Your task to perform on an android device: turn off data saver in the chrome app Image 0: 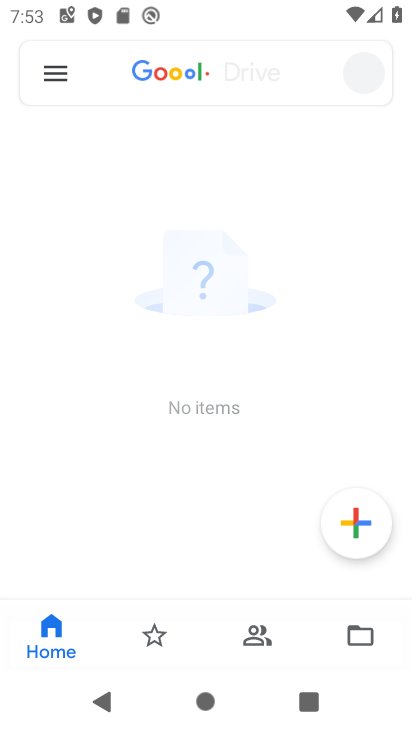
Step 0: click (58, 390)
Your task to perform on an android device: turn off data saver in the chrome app Image 1: 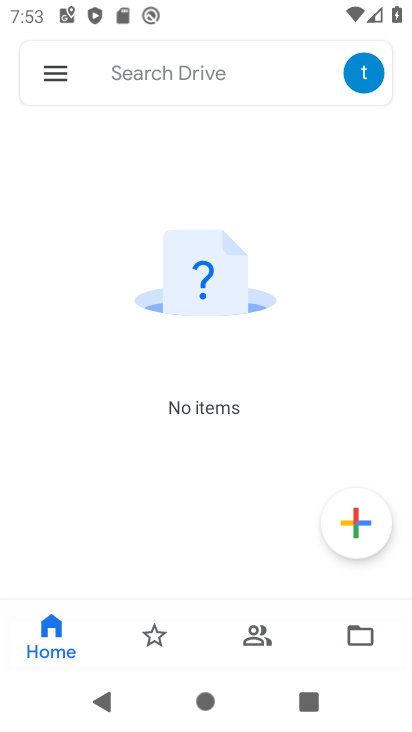
Step 1: press home button
Your task to perform on an android device: turn off data saver in the chrome app Image 2: 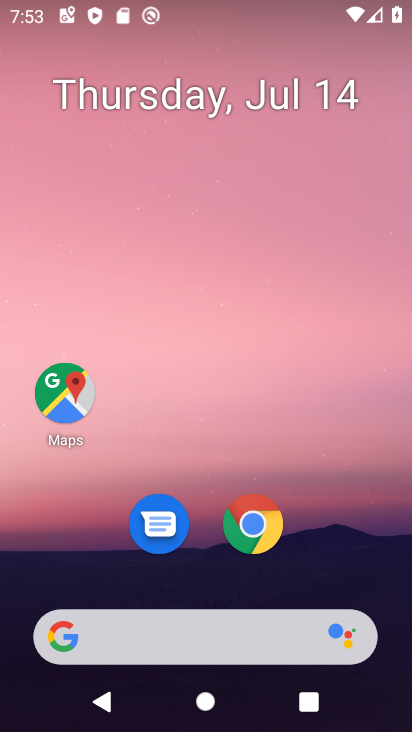
Step 2: click (258, 515)
Your task to perform on an android device: turn off data saver in the chrome app Image 3: 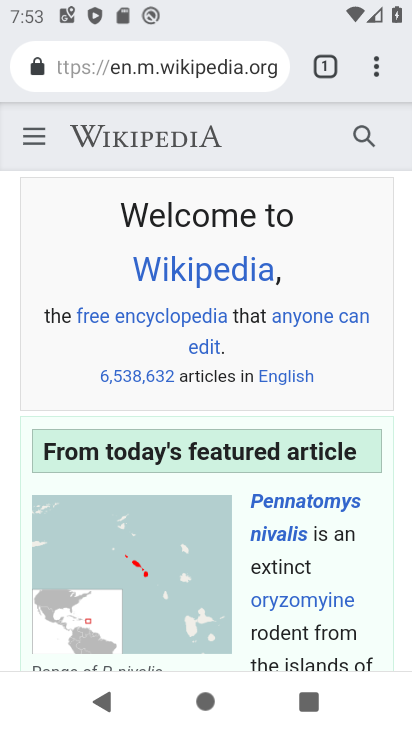
Step 3: click (380, 68)
Your task to perform on an android device: turn off data saver in the chrome app Image 4: 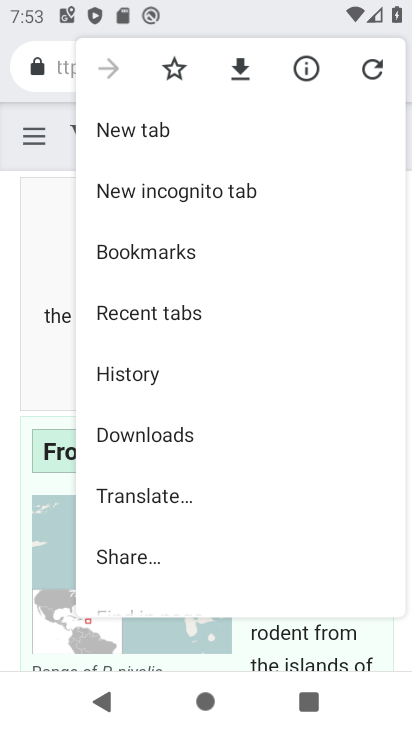
Step 4: drag from (239, 512) to (294, 150)
Your task to perform on an android device: turn off data saver in the chrome app Image 5: 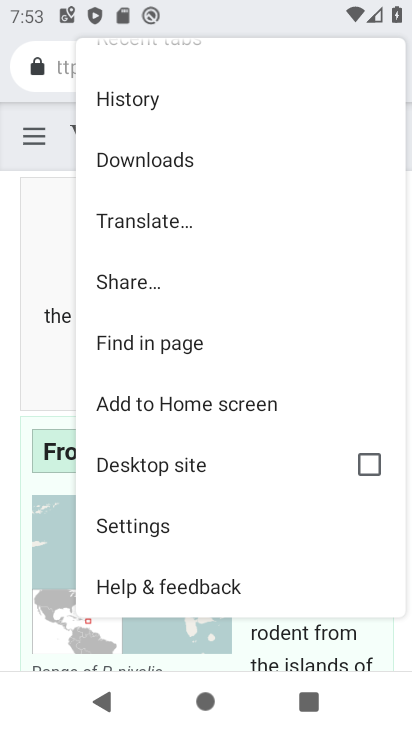
Step 5: click (147, 520)
Your task to perform on an android device: turn off data saver in the chrome app Image 6: 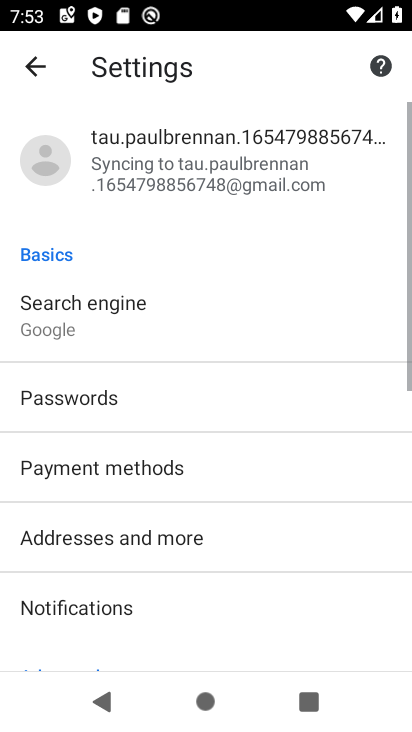
Step 6: drag from (276, 489) to (269, 130)
Your task to perform on an android device: turn off data saver in the chrome app Image 7: 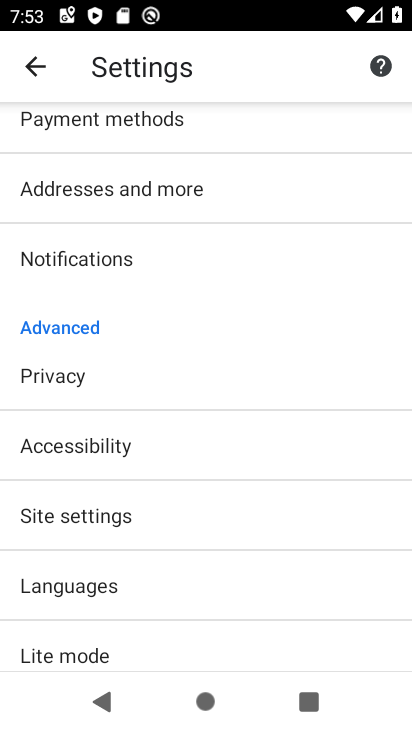
Step 7: drag from (141, 537) to (162, 288)
Your task to perform on an android device: turn off data saver in the chrome app Image 8: 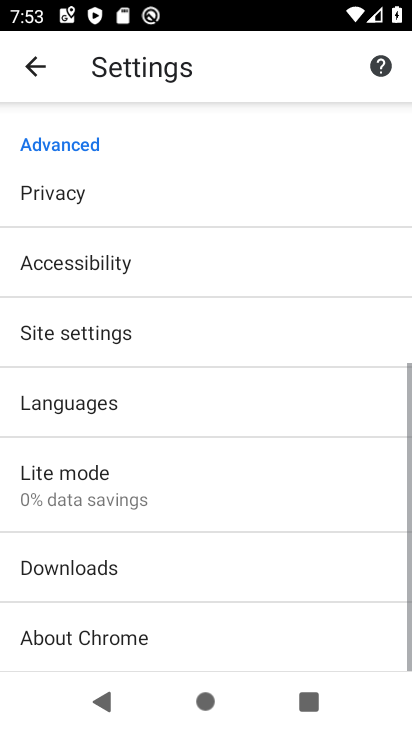
Step 8: click (152, 494)
Your task to perform on an android device: turn off data saver in the chrome app Image 9: 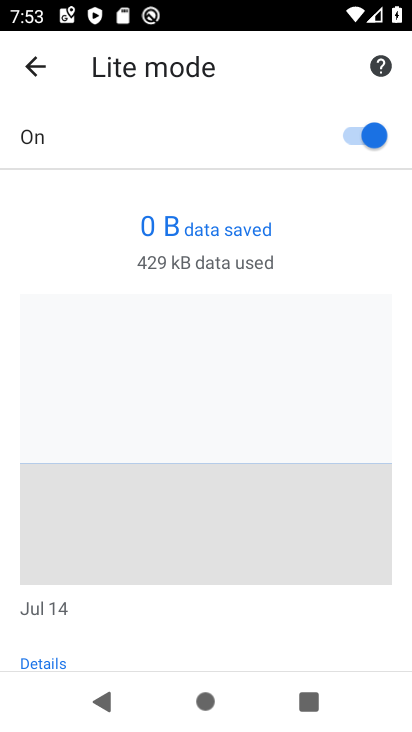
Step 9: click (358, 125)
Your task to perform on an android device: turn off data saver in the chrome app Image 10: 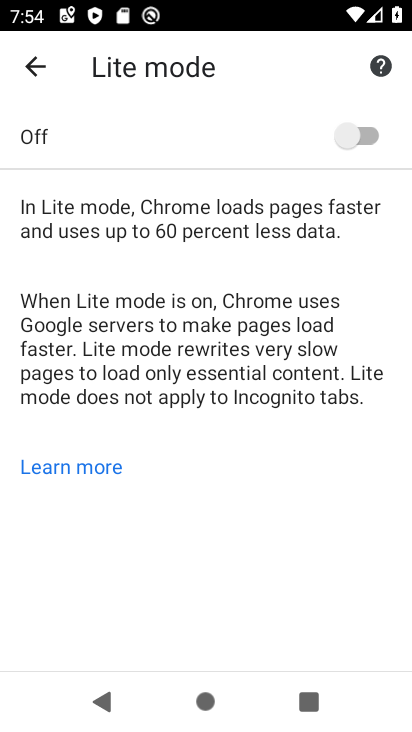
Step 10: task complete